Your task to perform on an android device: Is it going to rain today? Image 0: 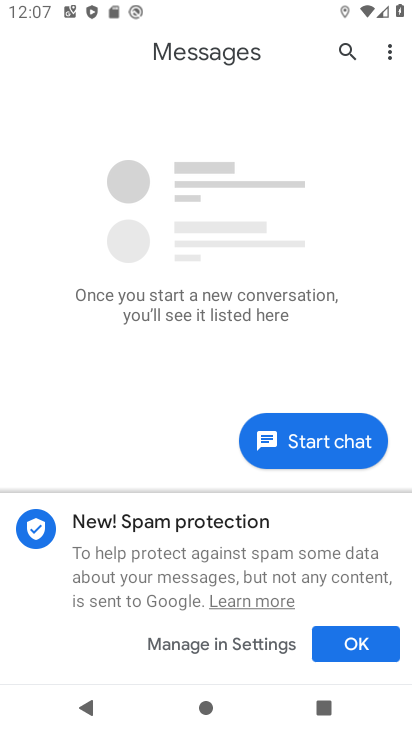
Step 0: press home button
Your task to perform on an android device: Is it going to rain today? Image 1: 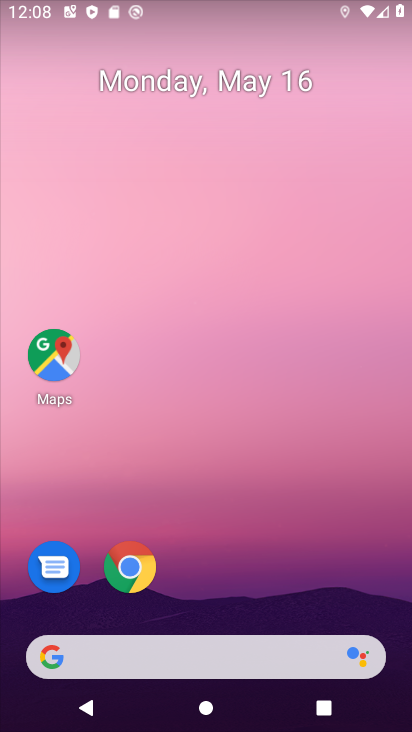
Step 1: drag from (310, 564) to (253, 138)
Your task to perform on an android device: Is it going to rain today? Image 2: 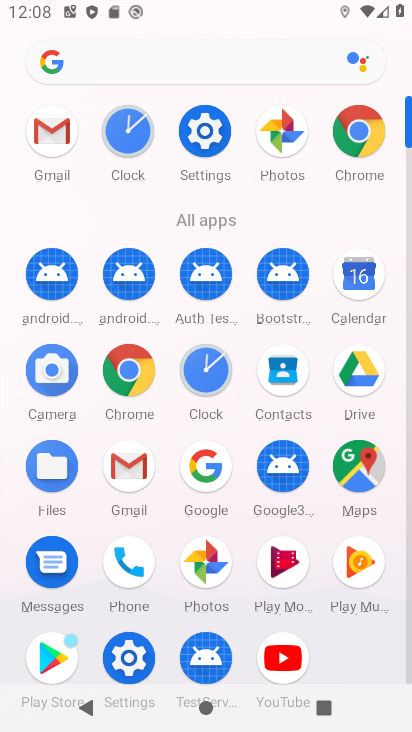
Step 2: click (361, 269)
Your task to perform on an android device: Is it going to rain today? Image 3: 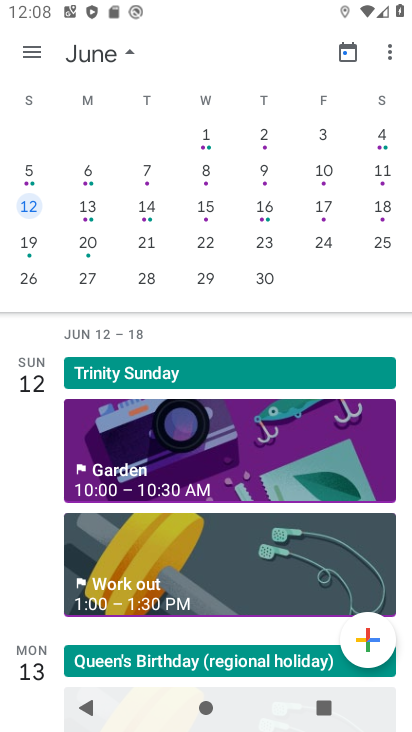
Step 3: press home button
Your task to perform on an android device: Is it going to rain today? Image 4: 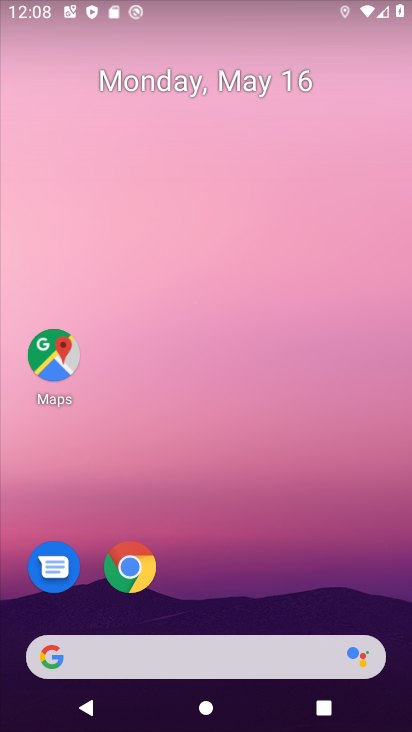
Step 4: drag from (281, 531) to (283, 172)
Your task to perform on an android device: Is it going to rain today? Image 5: 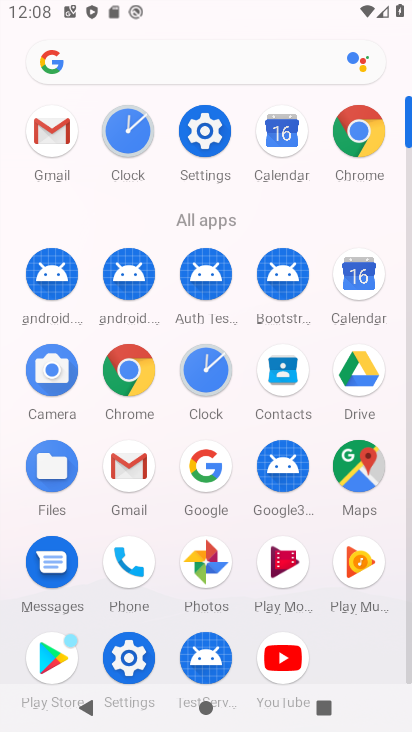
Step 5: click (129, 378)
Your task to perform on an android device: Is it going to rain today? Image 6: 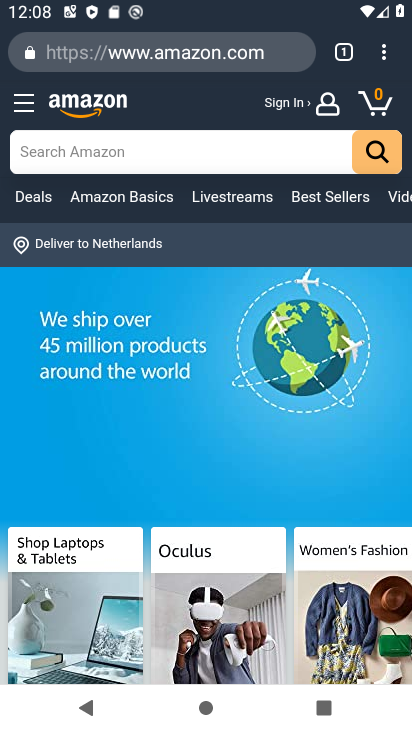
Step 6: click (235, 57)
Your task to perform on an android device: Is it going to rain today? Image 7: 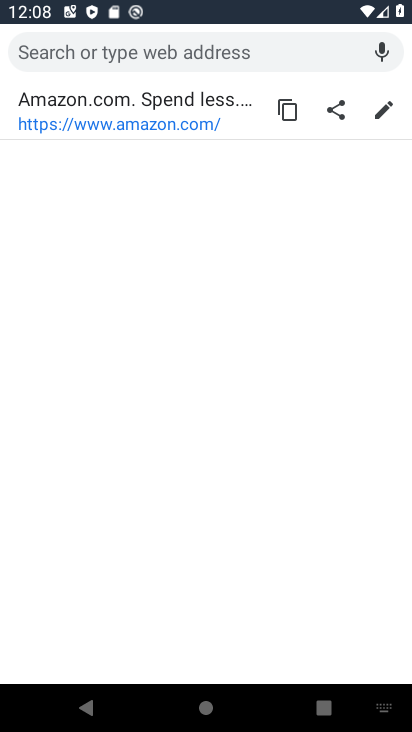
Step 7: type "weather"
Your task to perform on an android device: Is it going to rain today? Image 8: 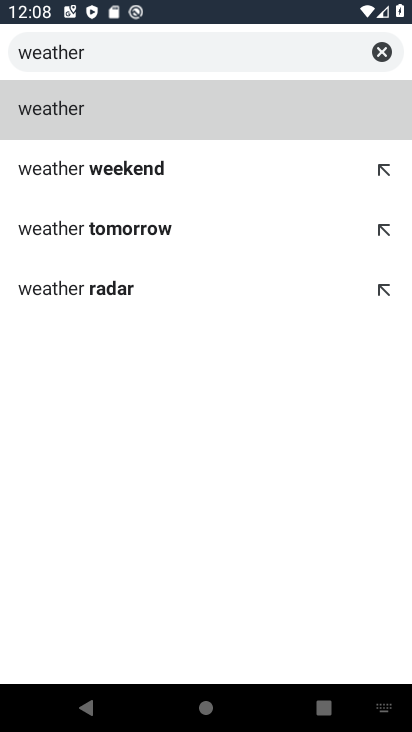
Step 8: click (34, 110)
Your task to perform on an android device: Is it going to rain today? Image 9: 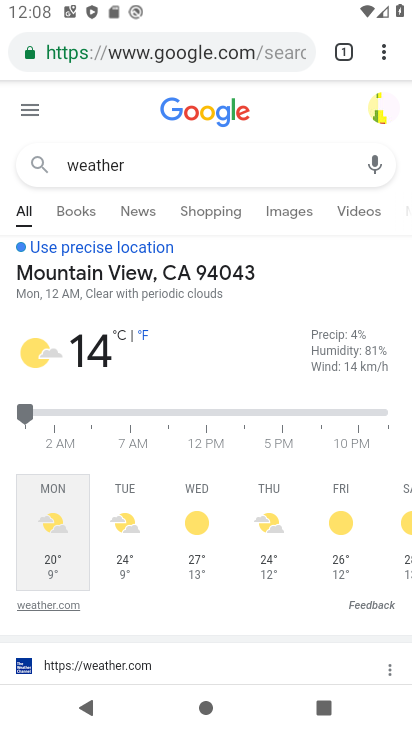
Step 9: task complete